Your task to perform on an android device: What is the recent news? Image 0: 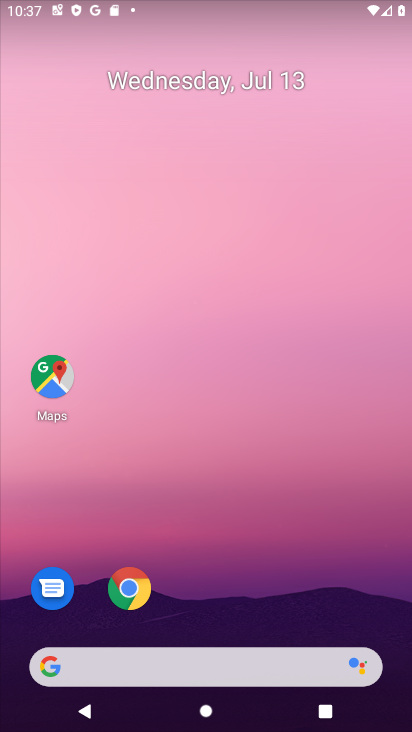
Step 0: drag from (244, 610) to (283, 34)
Your task to perform on an android device: What is the recent news? Image 1: 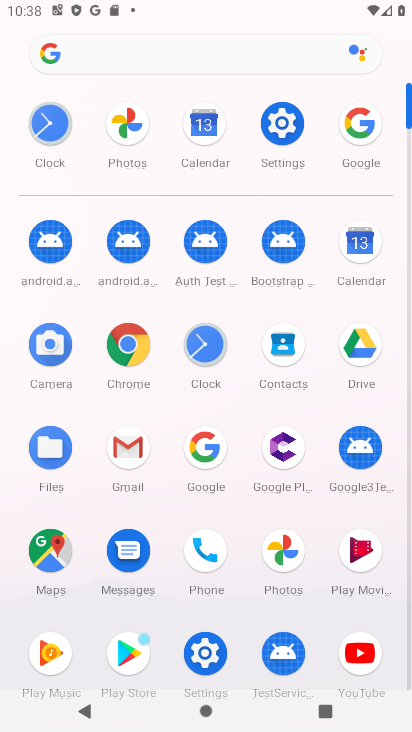
Step 1: click (207, 446)
Your task to perform on an android device: What is the recent news? Image 2: 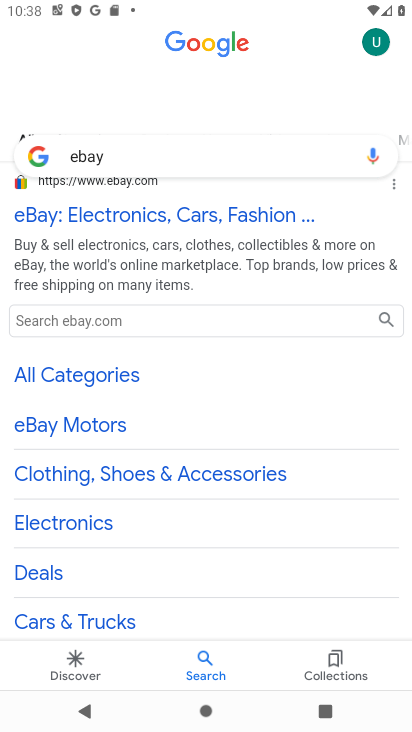
Step 2: click (211, 157)
Your task to perform on an android device: What is the recent news? Image 3: 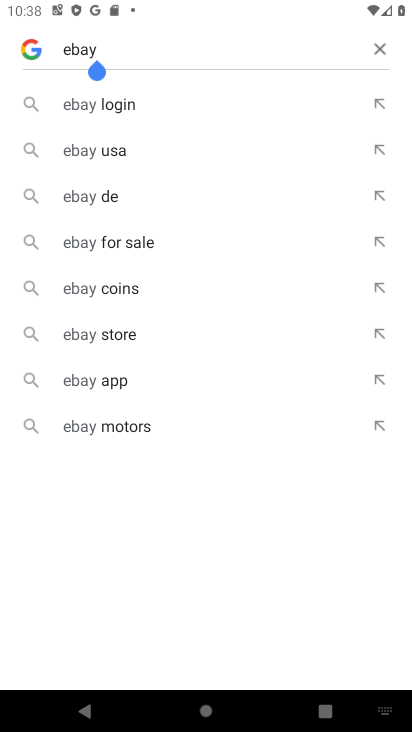
Step 3: click (382, 43)
Your task to perform on an android device: What is the recent news? Image 4: 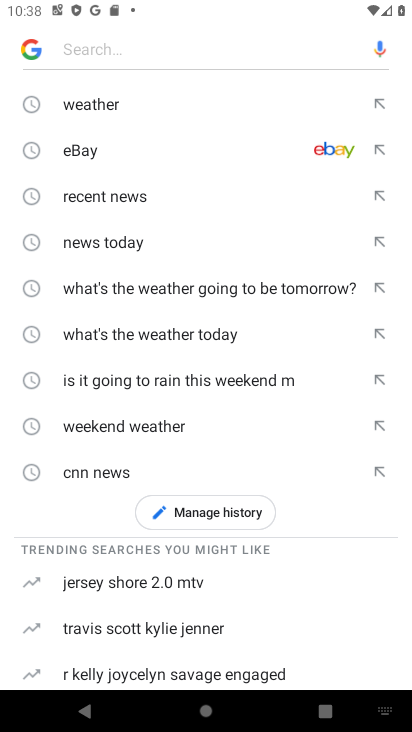
Step 4: click (139, 201)
Your task to perform on an android device: What is the recent news? Image 5: 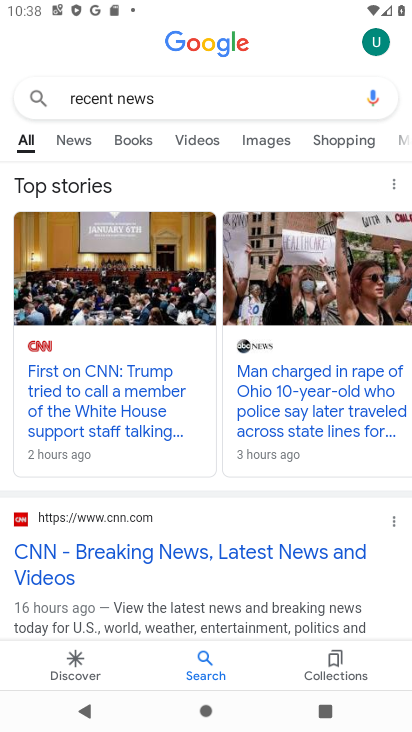
Step 5: task complete